Your task to perform on an android device: Open calendar and show me the second week of next month Image 0: 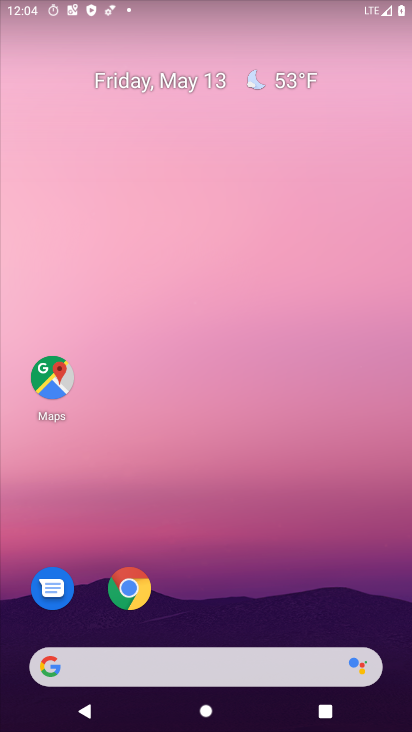
Step 0: drag from (317, 571) to (306, 115)
Your task to perform on an android device: Open calendar and show me the second week of next month Image 1: 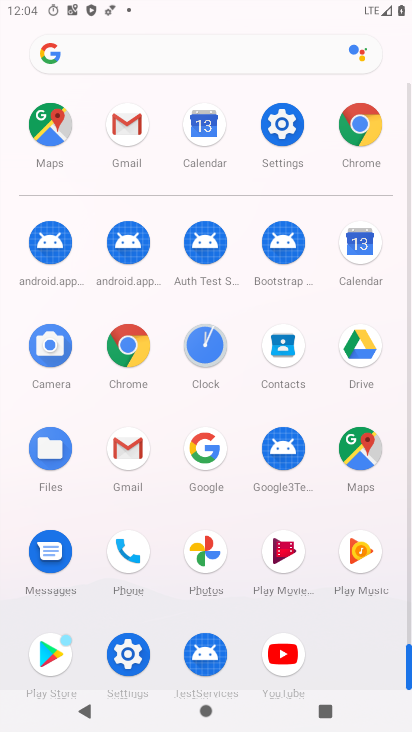
Step 1: click (357, 238)
Your task to perform on an android device: Open calendar and show me the second week of next month Image 2: 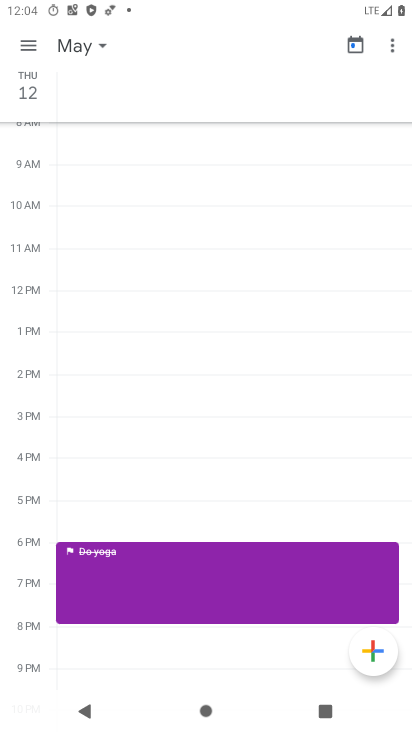
Step 2: click (62, 40)
Your task to perform on an android device: Open calendar and show me the second week of next month Image 3: 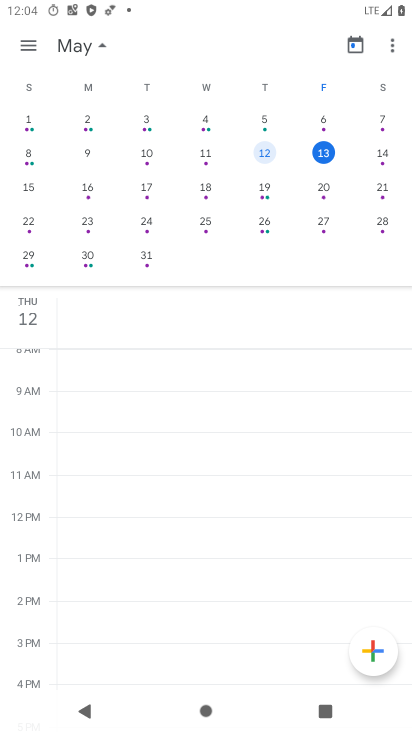
Step 3: drag from (333, 217) to (91, 182)
Your task to perform on an android device: Open calendar and show me the second week of next month Image 4: 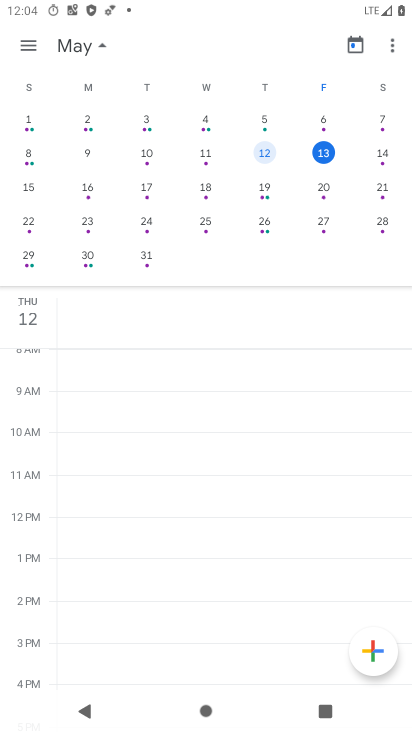
Step 4: drag from (341, 182) to (4, 159)
Your task to perform on an android device: Open calendar and show me the second week of next month Image 5: 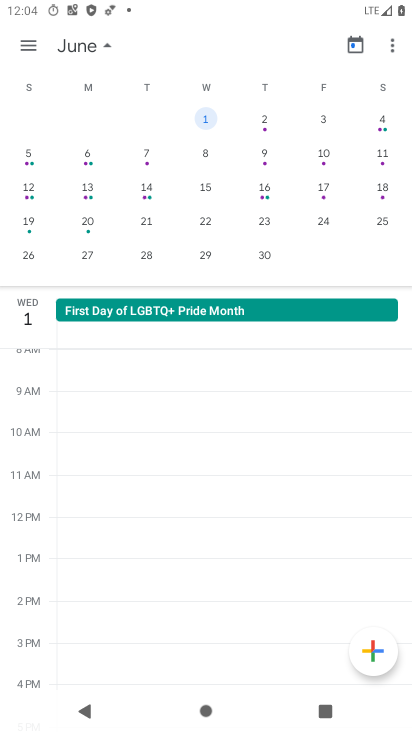
Step 5: click (25, 184)
Your task to perform on an android device: Open calendar and show me the second week of next month Image 6: 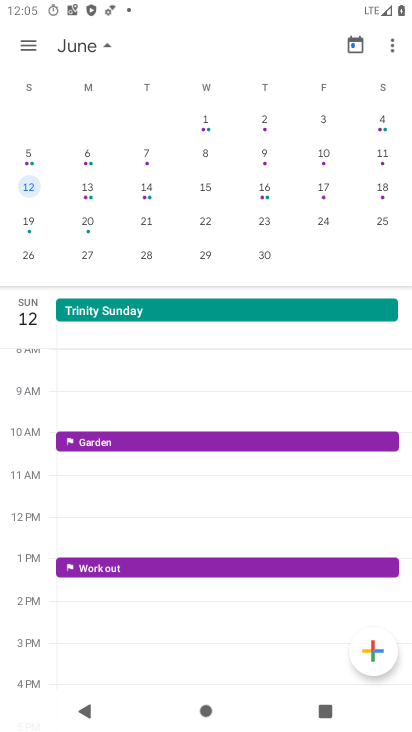
Step 6: task complete